Your task to perform on an android device: turn on priority inbox in the gmail app Image 0: 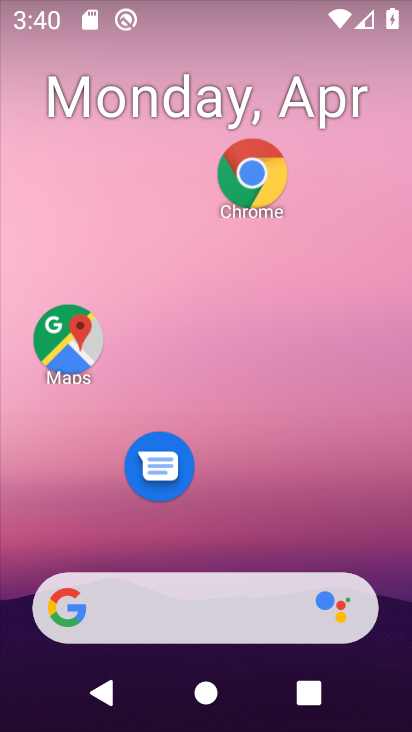
Step 0: drag from (351, 545) to (343, 113)
Your task to perform on an android device: turn on priority inbox in the gmail app Image 1: 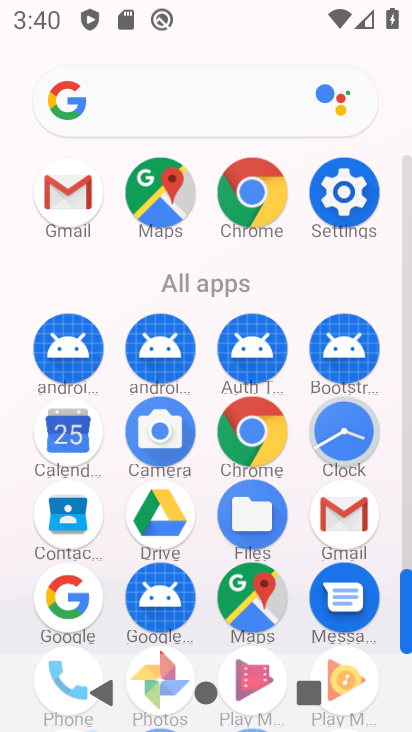
Step 1: click (76, 212)
Your task to perform on an android device: turn on priority inbox in the gmail app Image 2: 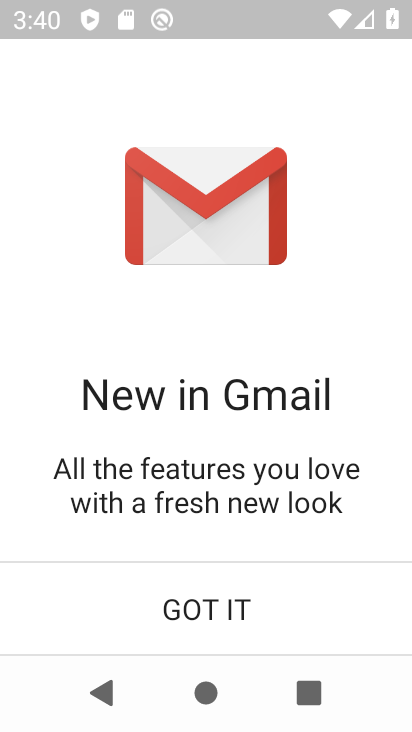
Step 2: click (205, 620)
Your task to perform on an android device: turn on priority inbox in the gmail app Image 3: 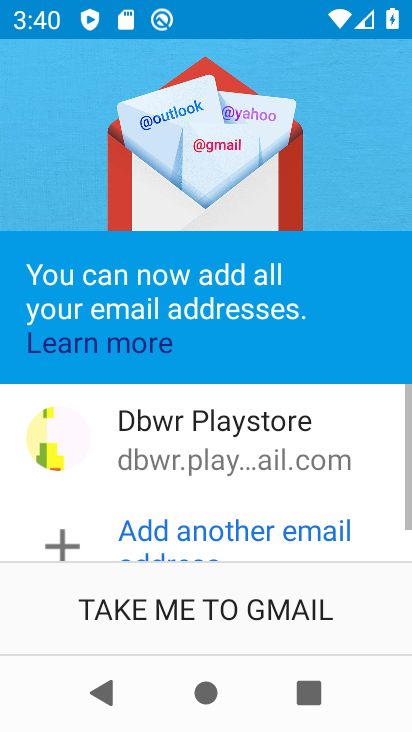
Step 3: click (205, 620)
Your task to perform on an android device: turn on priority inbox in the gmail app Image 4: 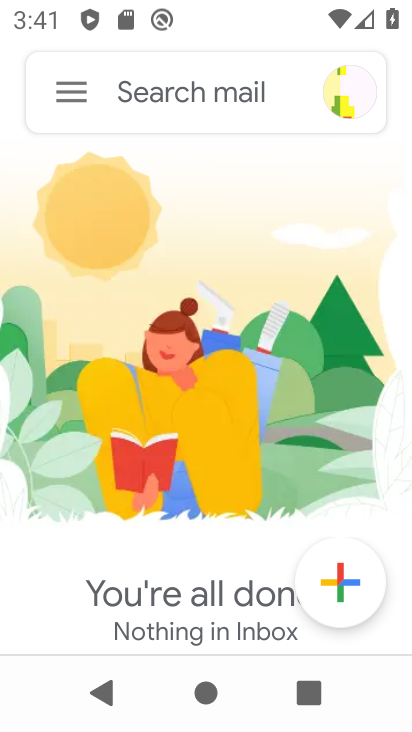
Step 4: click (66, 103)
Your task to perform on an android device: turn on priority inbox in the gmail app Image 5: 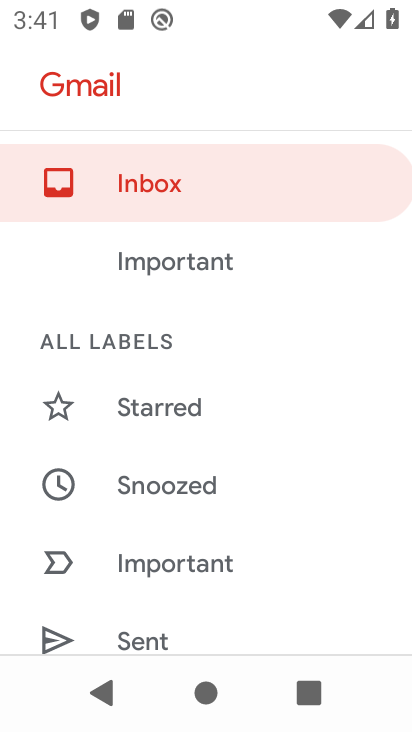
Step 5: drag from (260, 597) to (240, 148)
Your task to perform on an android device: turn on priority inbox in the gmail app Image 6: 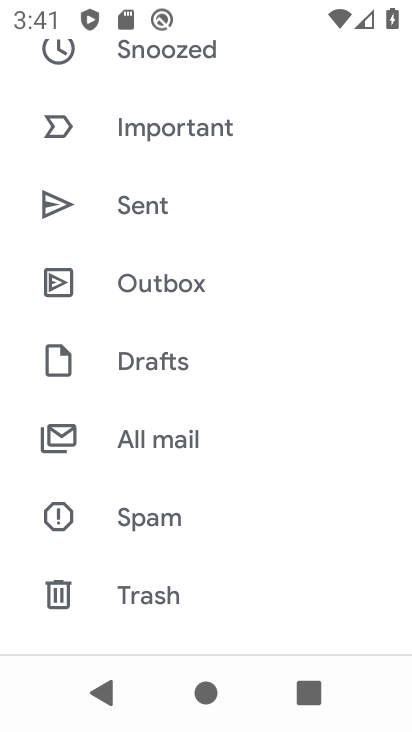
Step 6: drag from (300, 601) to (262, 205)
Your task to perform on an android device: turn on priority inbox in the gmail app Image 7: 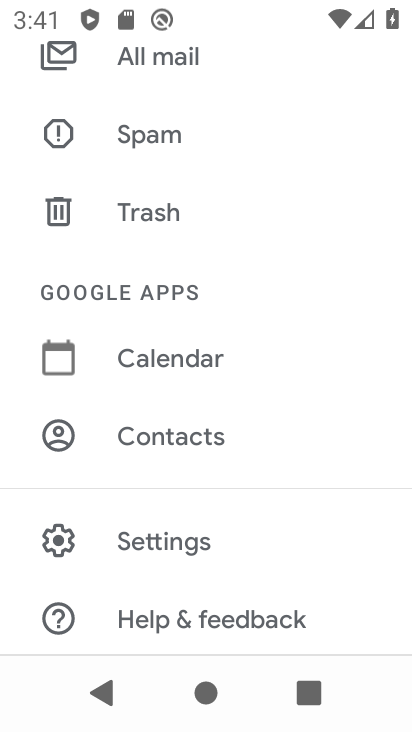
Step 7: click (228, 551)
Your task to perform on an android device: turn on priority inbox in the gmail app Image 8: 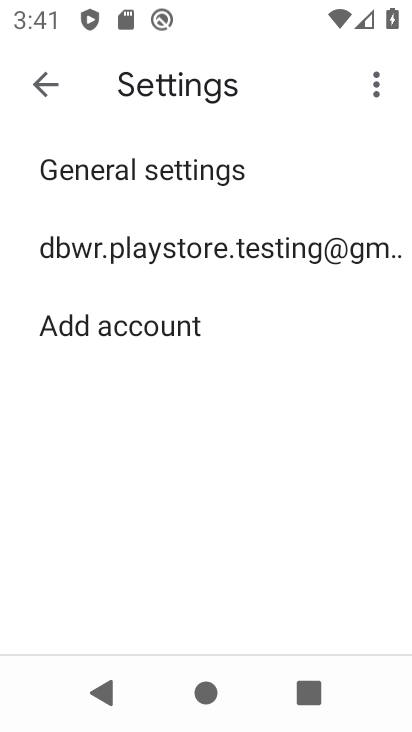
Step 8: click (206, 285)
Your task to perform on an android device: turn on priority inbox in the gmail app Image 9: 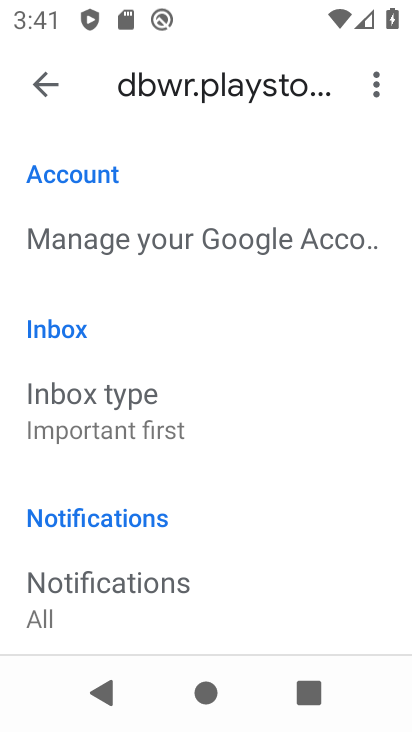
Step 9: click (83, 398)
Your task to perform on an android device: turn on priority inbox in the gmail app Image 10: 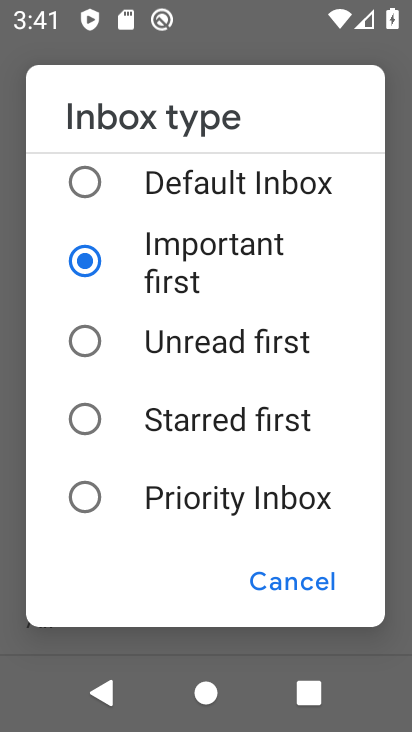
Step 10: click (207, 516)
Your task to perform on an android device: turn on priority inbox in the gmail app Image 11: 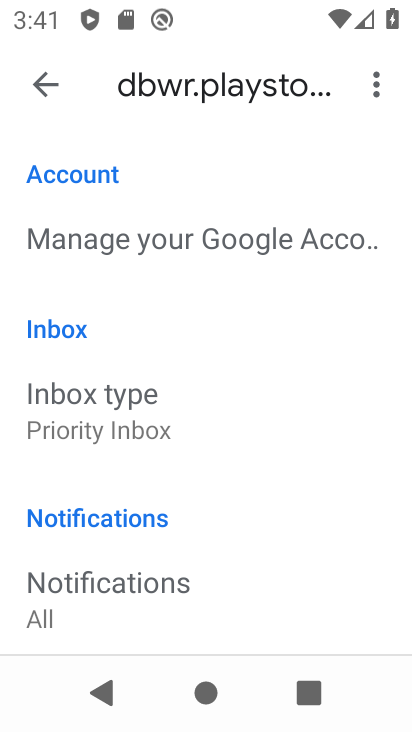
Step 11: task complete